Your task to perform on an android device: turn on improve location accuracy Image 0: 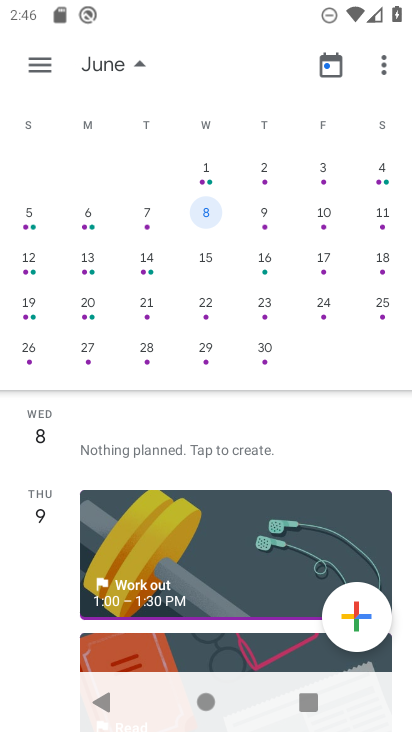
Step 0: press home button
Your task to perform on an android device: turn on improve location accuracy Image 1: 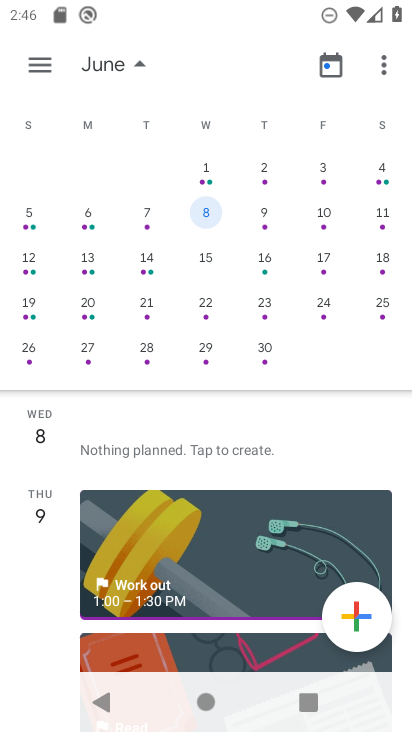
Step 1: press home button
Your task to perform on an android device: turn on improve location accuracy Image 2: 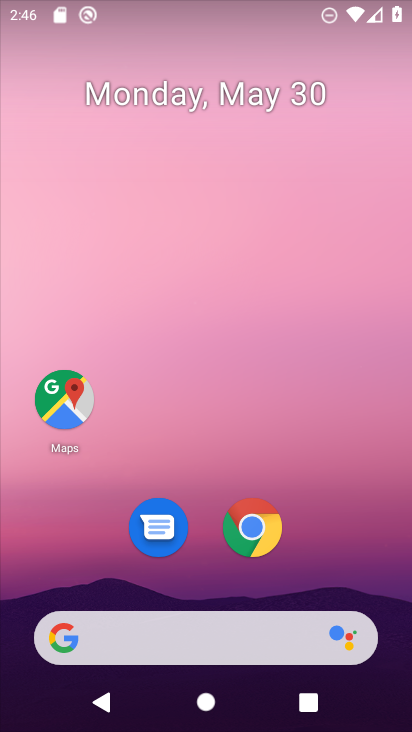
Step 2: press back button
Your task to perform on an android device: turn on improve location accuracy Image 3: 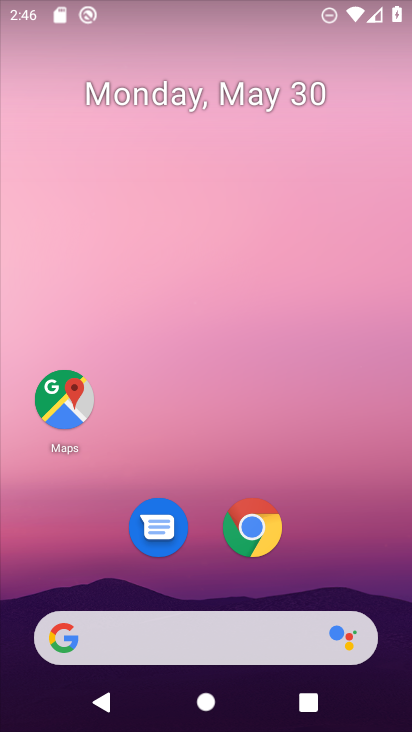
Step 3: press back button
Your task to perform on an android device: turn on improve location accuracy Image 4: 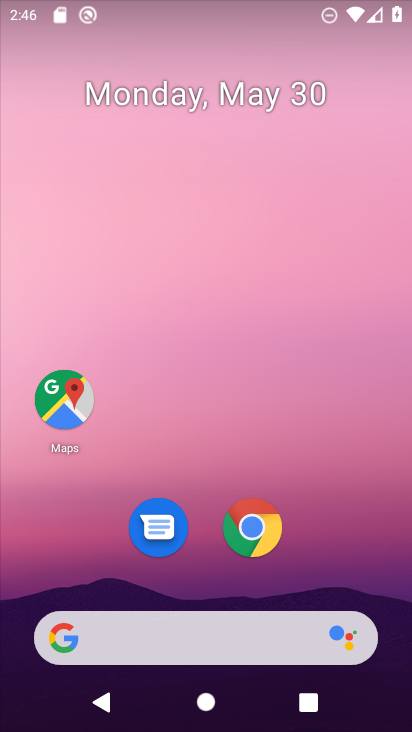
Step 4: press back button
Your task to perform on an android device: turn on improve location accuracy Image 5: 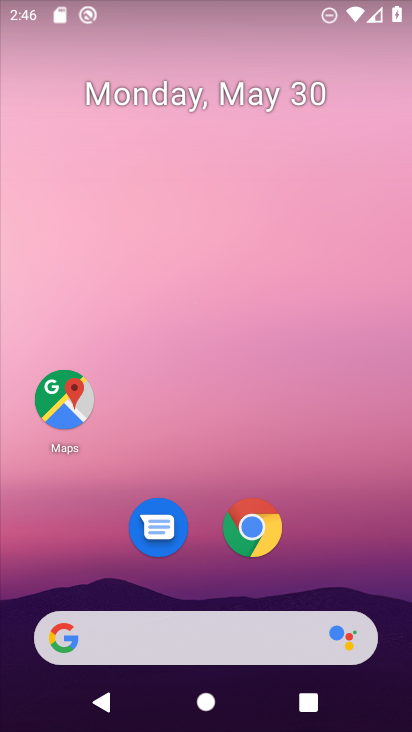
Step 5: drag from (246, 694) to (208, 168)
Your task to perform on an android device: turn on improve location accuracy Image 6: 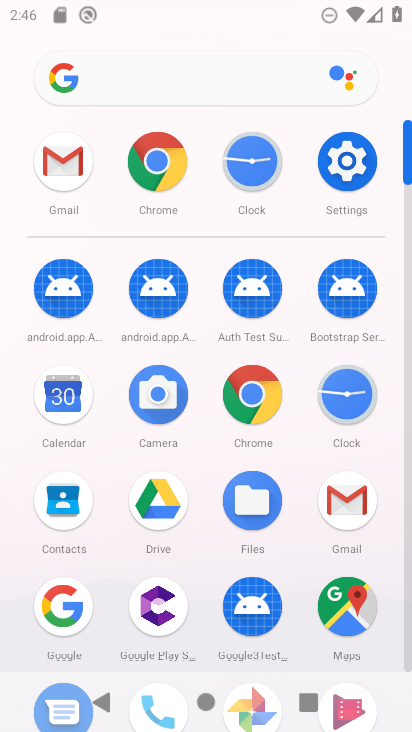
Step 6: drag from (327, 531) to (257, 30)
Your task to perform on an android device: turn on improve location accuracy Image 7: 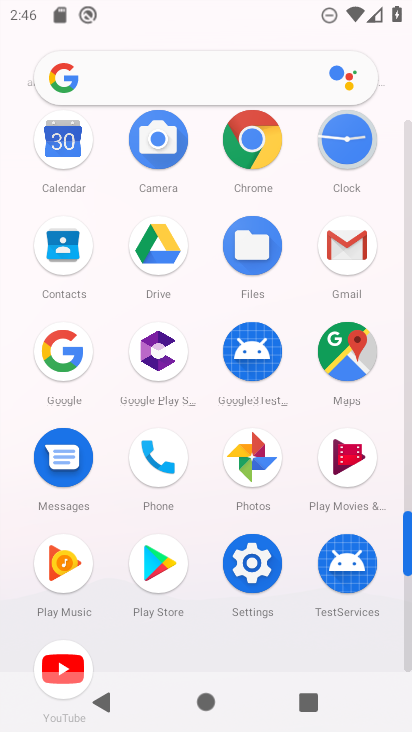
Step 7: click (251, 549)
Your task to perform on an android device: turn on improve location accuracy Image 8: 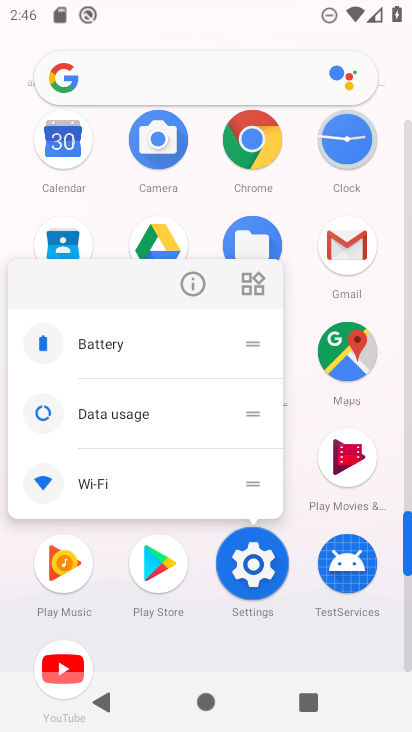
Step 8: click (252, 582)
Your task to perform on an android device: turn on improve location accuracy Image 9: 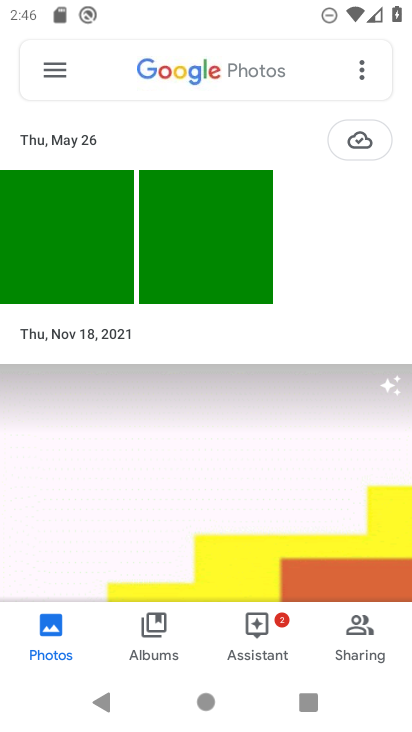
Step 9: drag from (286, 662) to (188, 256)
Your task to perform on an android device: turn on improve location accuracy Image 10: 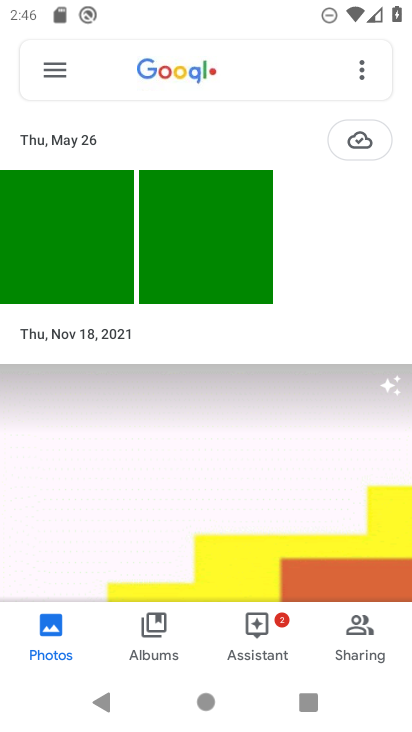
Step 10: drag from (249, 639) to (182, 68)
Your task to perform on an android device: turn on improve location accuracy Image 11: 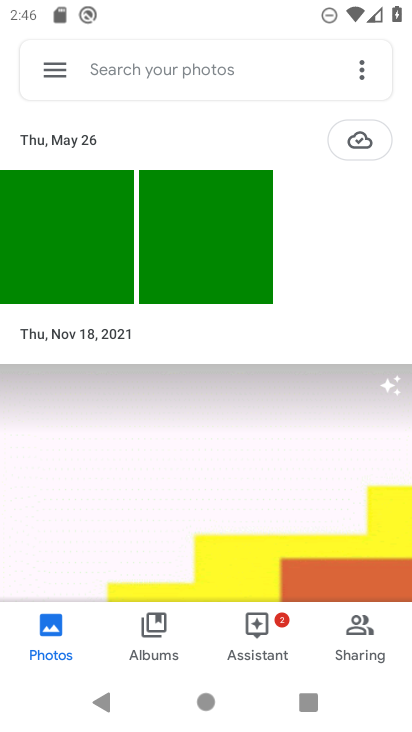
Step 11: drag from (256, 594) to (177, 7)
Your task to perform on an android device: turn on improve location accuracy Image 12: 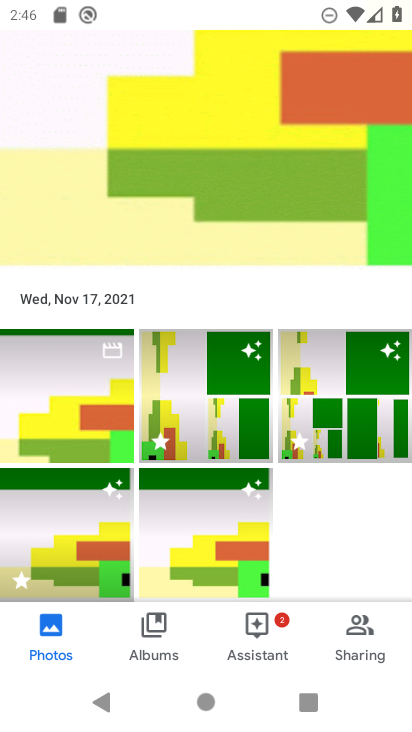
Step 12: press home button
Your task to perform on an android device: turn on improve location accuracy Image 13: 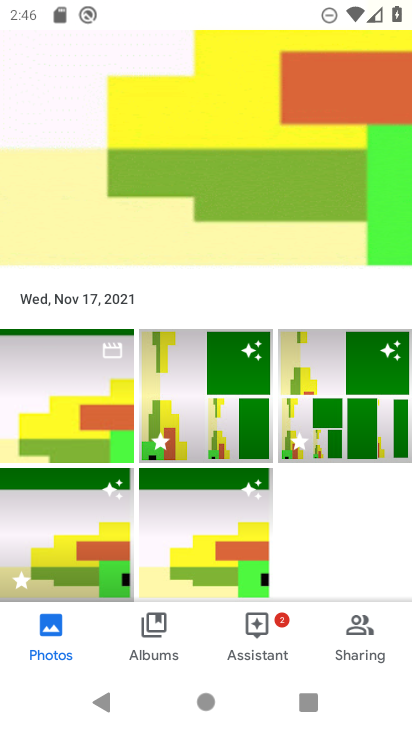
Step 13: press home button
Your task to perform on an android device: turn on improve location accuracy Image 14: 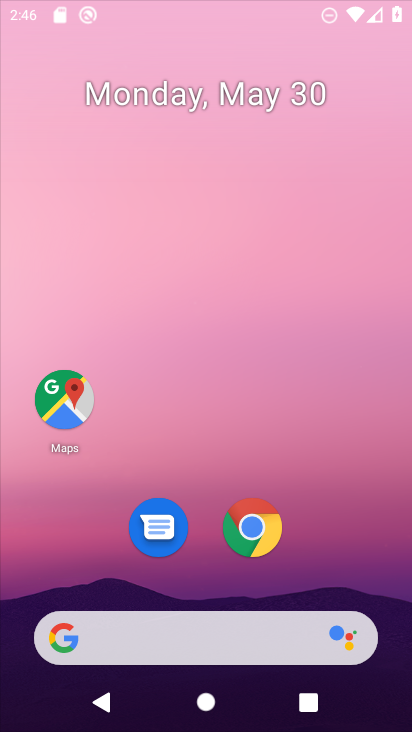
Step 14: press home button
Your task to perform on an android device: turn on improve location accuracy Image 15: 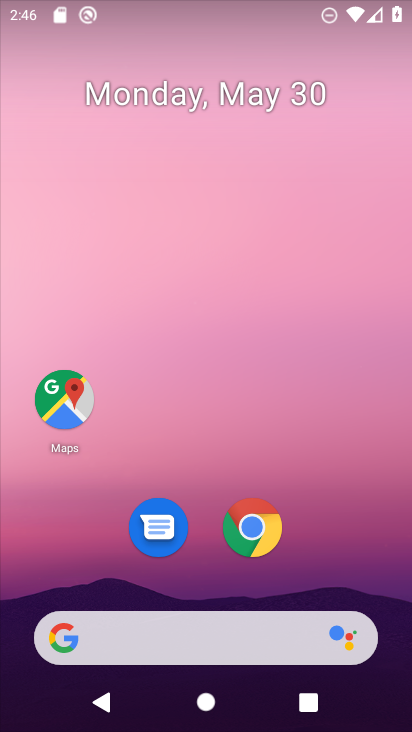
Step 15: drag from (217, 508) to (112, 66)
Your task to perform on an android device: turn on improve location accuracy Image 16: 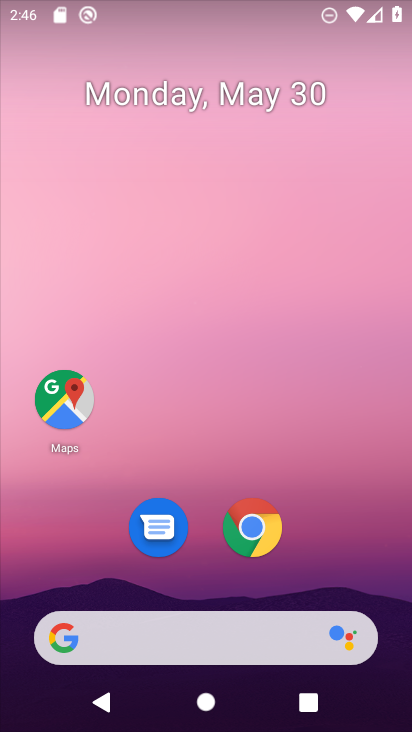
Step 16: click (119, 11)
Your task to perform on an android device: turn on improve location accuracy Image 17: 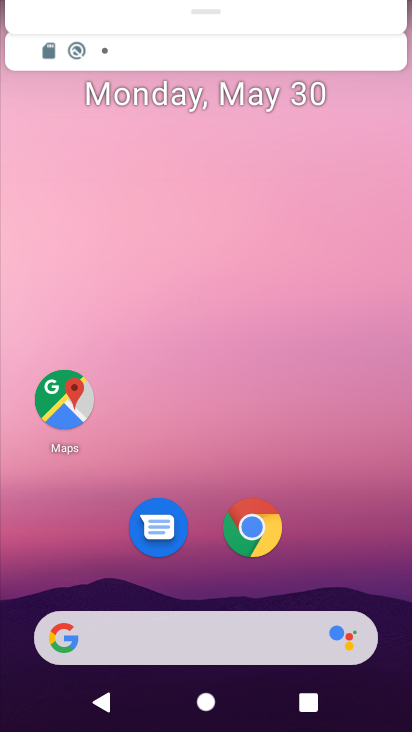
Step 17: drag from (134, 82) to (113, 19)
Your task to perform on an android device: turn on improve location accuracy Image 18: 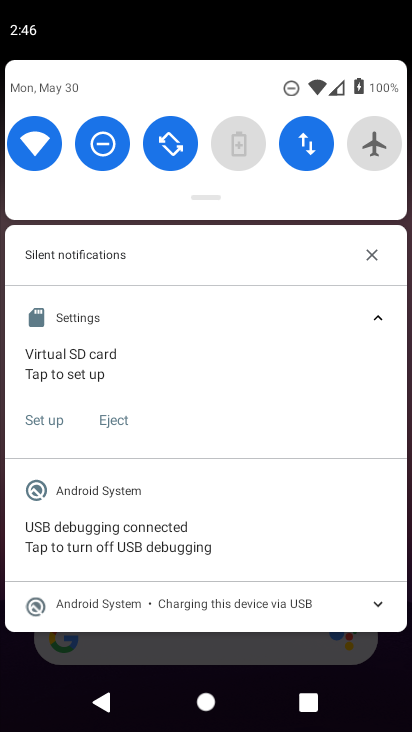
Step 18: click (300, 646)
Your task to perform on an android device: turn on improve location accuracy Image 19: 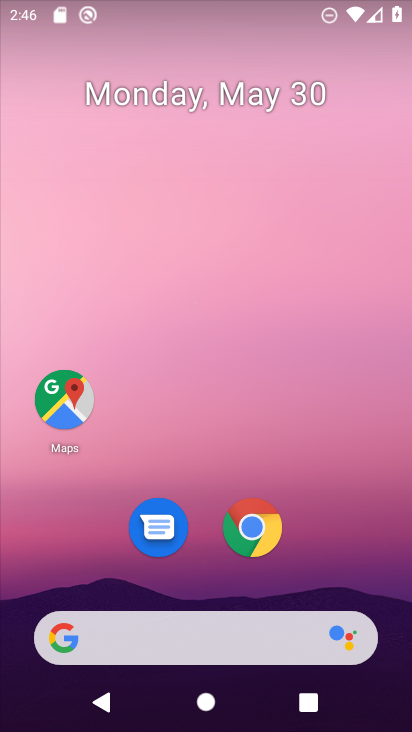
Step 19: drag from (269, 685) to (164, 107)
Your task to perform on an android device: turn on improve location accuracy Image 20: 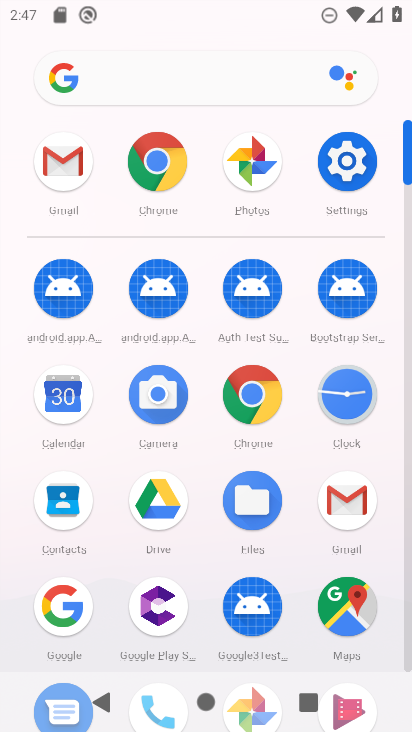
Step 20: click (343, 172)
Your task to perform on an android device: turn on improve location accuracy Image 21: 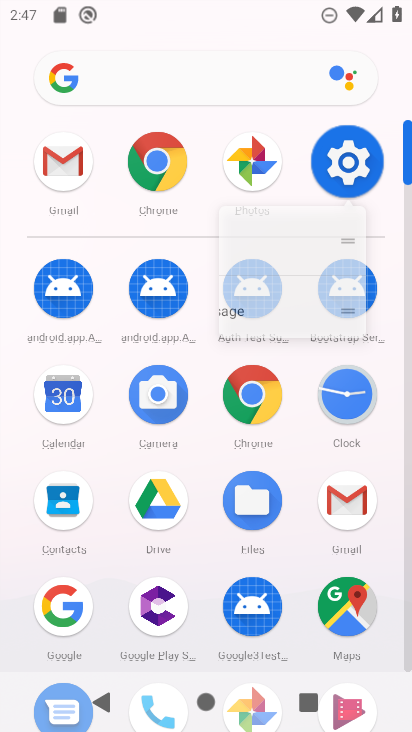
Step 21: click (345, 173)
Your task to perform on an android device: turn on improve location accuracy Image 22: 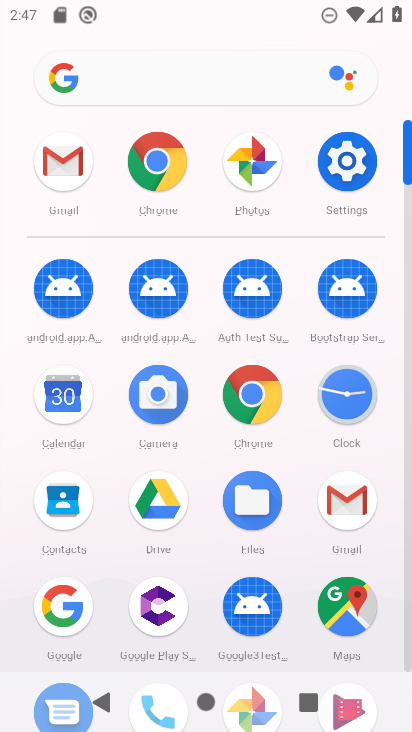
Step 22: click (346, 177)
Your task to perform on an android device: turn on improve location accuracy Image 23: 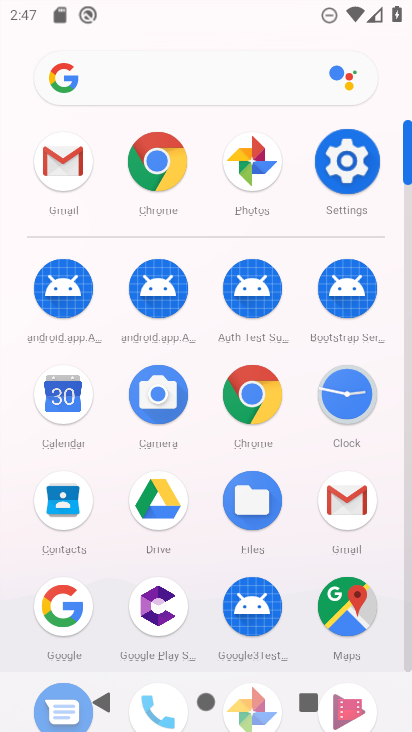
Step 23: click (346, 174)
Your task to perform on an android device: turn on improve location accuracy Image 24: 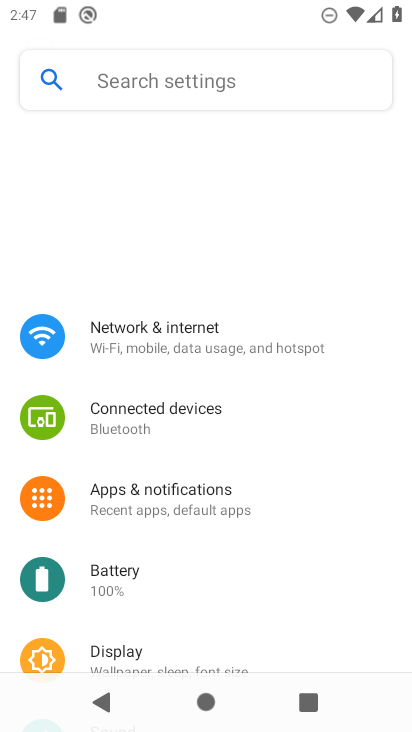
Step 24: click (346, 174)
Your task to perform on an android device: turn on improve location accuracy Image 25: 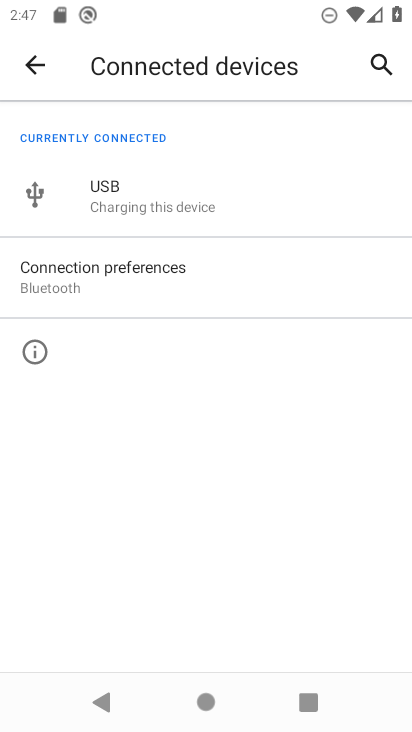
Step 25: click (28, 56)
Your task to perform on an android device: turn on improve location accuracy Image 26: 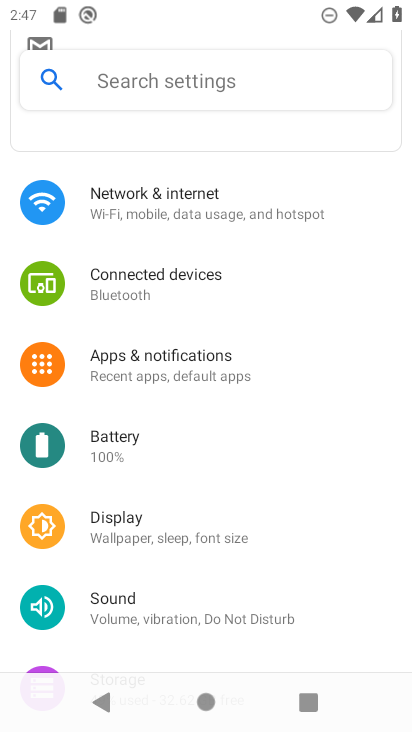
Step 26: drag from (184, 547) to (95, 160)
Your task to perform on an android device: turn on improve location accuracy Image 27: 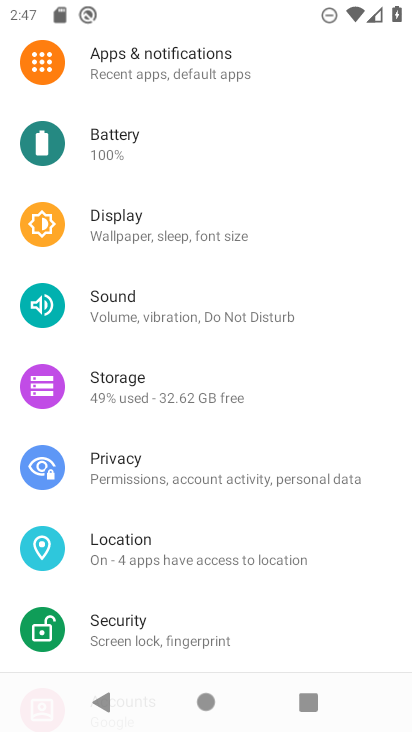
Step 27: drag from (132, 493) to (119, 184)
Your task to perform on an android device: turn on improve location accuracy Image 28: 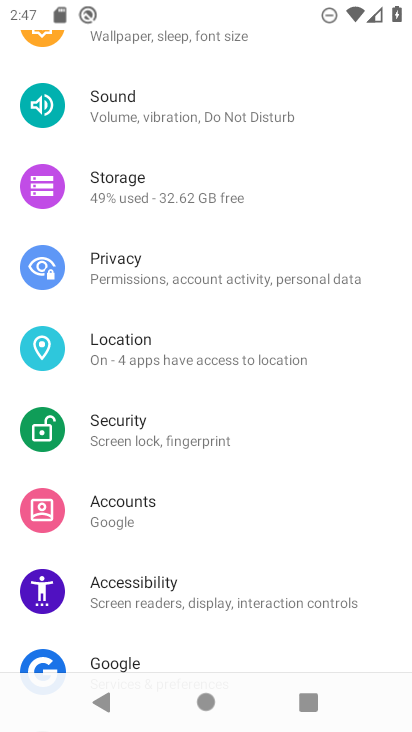
Step 28: drag from (196, 416) to (171, 153)
Your task to perform on an android device: turn on improve location accuracy Image 29: 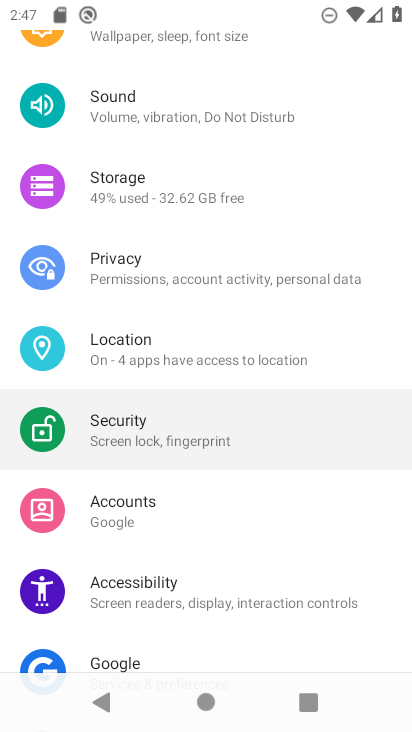
Step 29: drag from (263, 438) to (250, 98)
Your task to perform on an android device: turn on improve location accuracy Image 30: 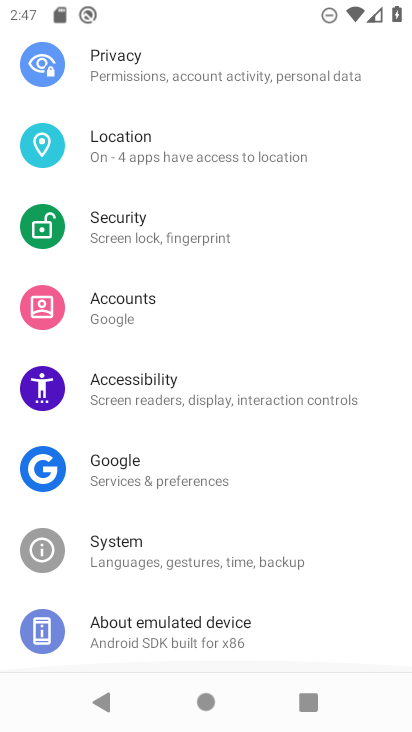
Step 30: drag from (208, 425) to (175, 114)
Your task to perform on an android device: turn on improve location accuracy Image 31: 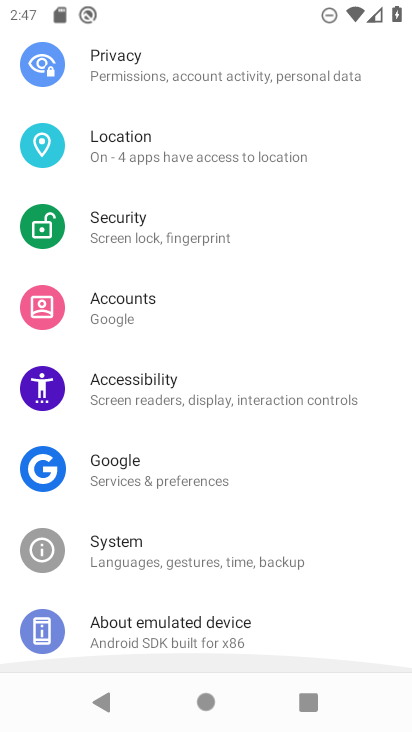
Step 31: drag from (200, 408) to (162, 164)
Your task to perform on an android device: turn on improve location accuracy Image 32: 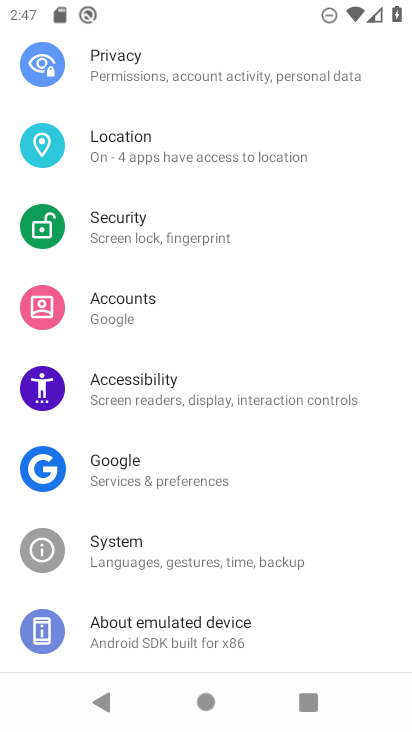
Step 32: click (129, 149)
Your task to perform on an android device: turn on improve location accuracy Image 33: 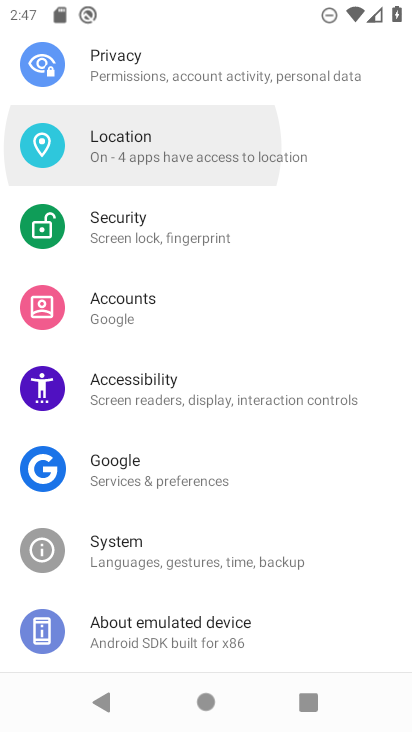
Step 33: click (129, 149)
Your task to perform on an android device: turn on improve location accuracy Image 34: 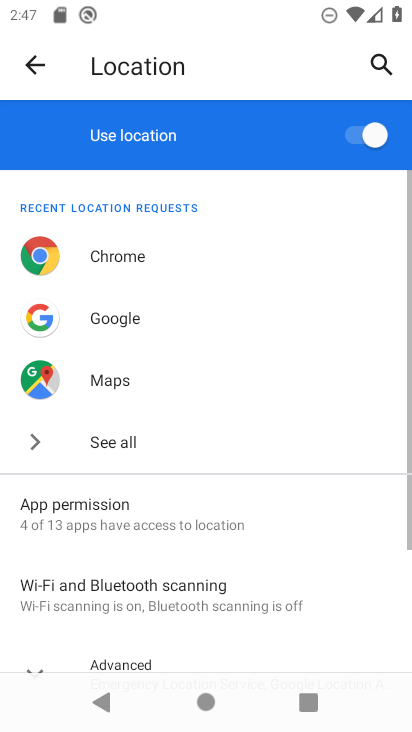
Step 34: drag from (138, 516) to (151, 206)
Your task to perform on an android device: turn on improve location accuracy Image 35: 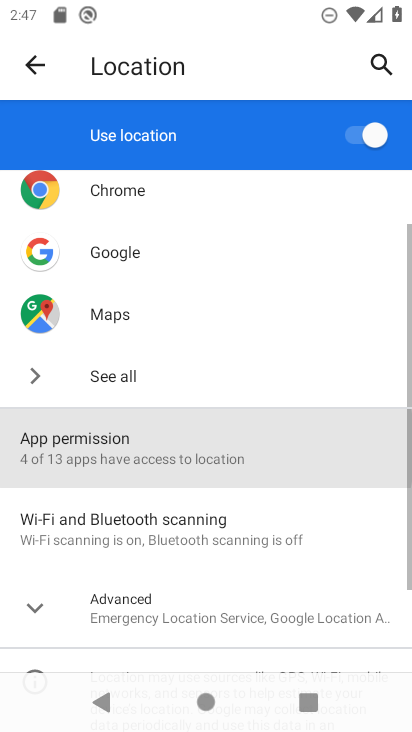
Step 35: drag from (201, 479) to (209, 75)
Your task to perform on an android device: turn on improve location accuracy Image 36: 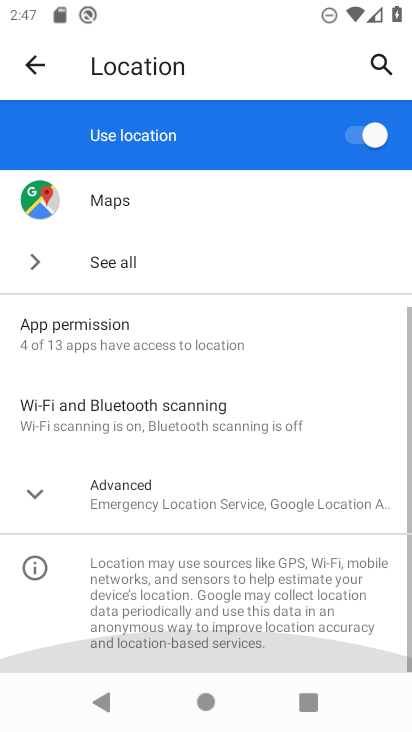
Step 36: drag from (190, 395) to (219, 119)
Your task to perform on an android device: turn on improve location accuracy Image 37: 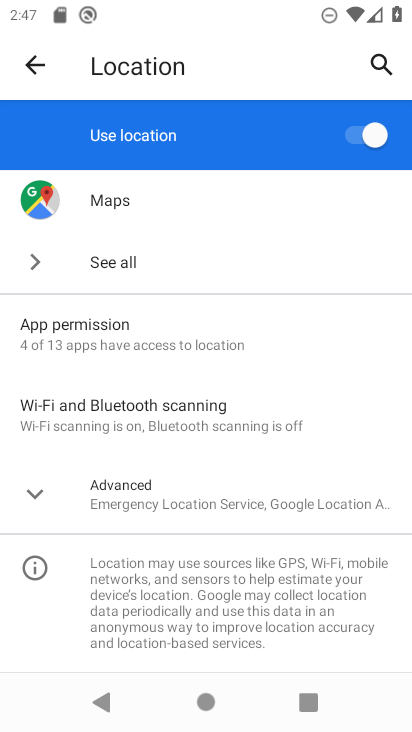
Step 37: click (138, 494)
Your task to perform on an android device: turn on improve location accuracy Image 38: 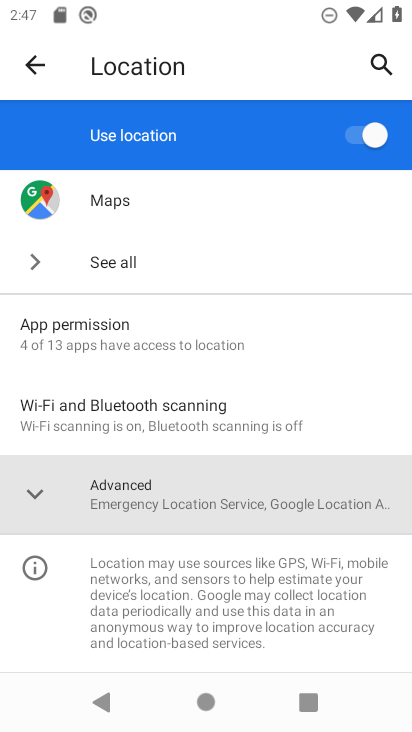
Step 38: click (138, 494)
Your task to perform on an android device: turn on improve location accuracy Image 39: 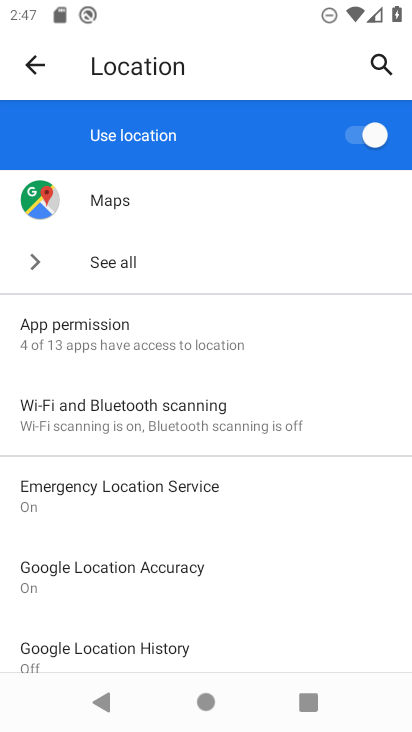
Step 39: click (54, 560)
Your task to perform on an android device: turn on improve location accuracy Image 40: 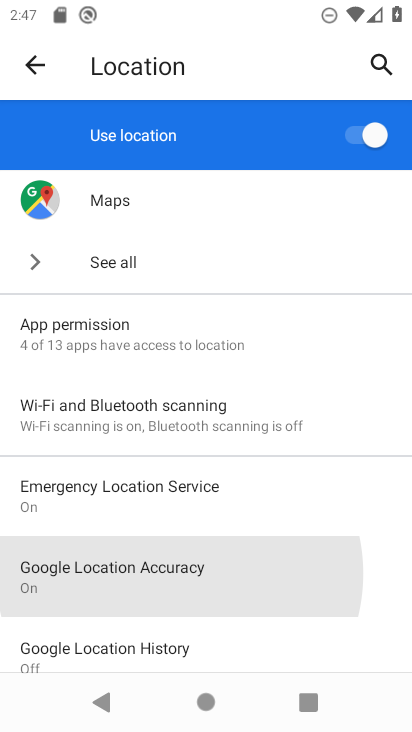
Step 40: click (56, 559)
Your task to perform on an android device: turn on improve location accuracy Image 41: 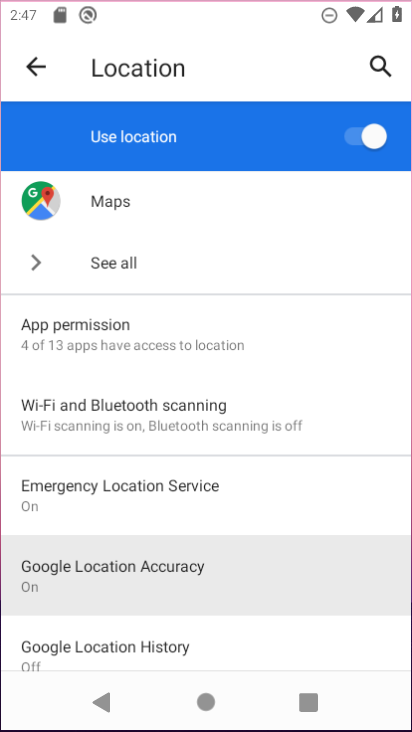
Step 41: click (54, 563)
Your task to perform on an android device: turn on improve location accuracy Image 42: 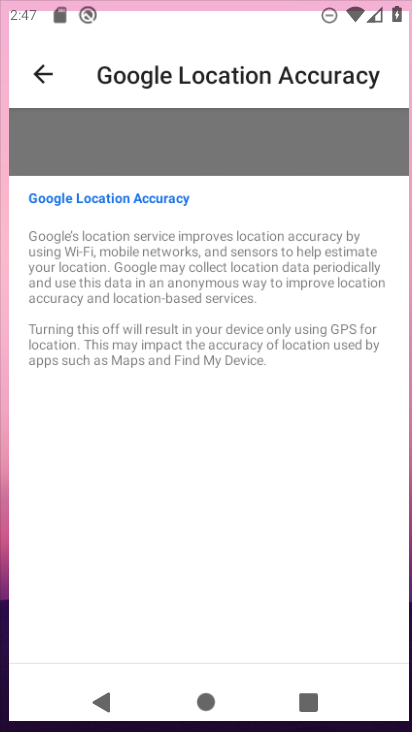
Step 42: click (54, 564)
Your task to perform on an android device: turn on improve location accuracy Image 43: 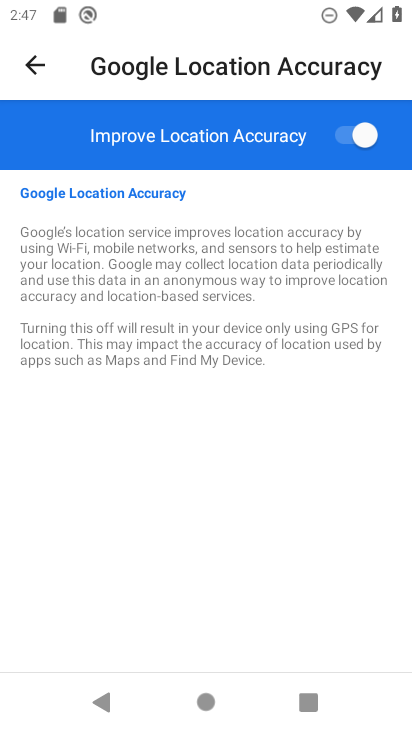
Step 43: task complete